Your task to perform on an android device: Set an alarm for 7am Image 0: 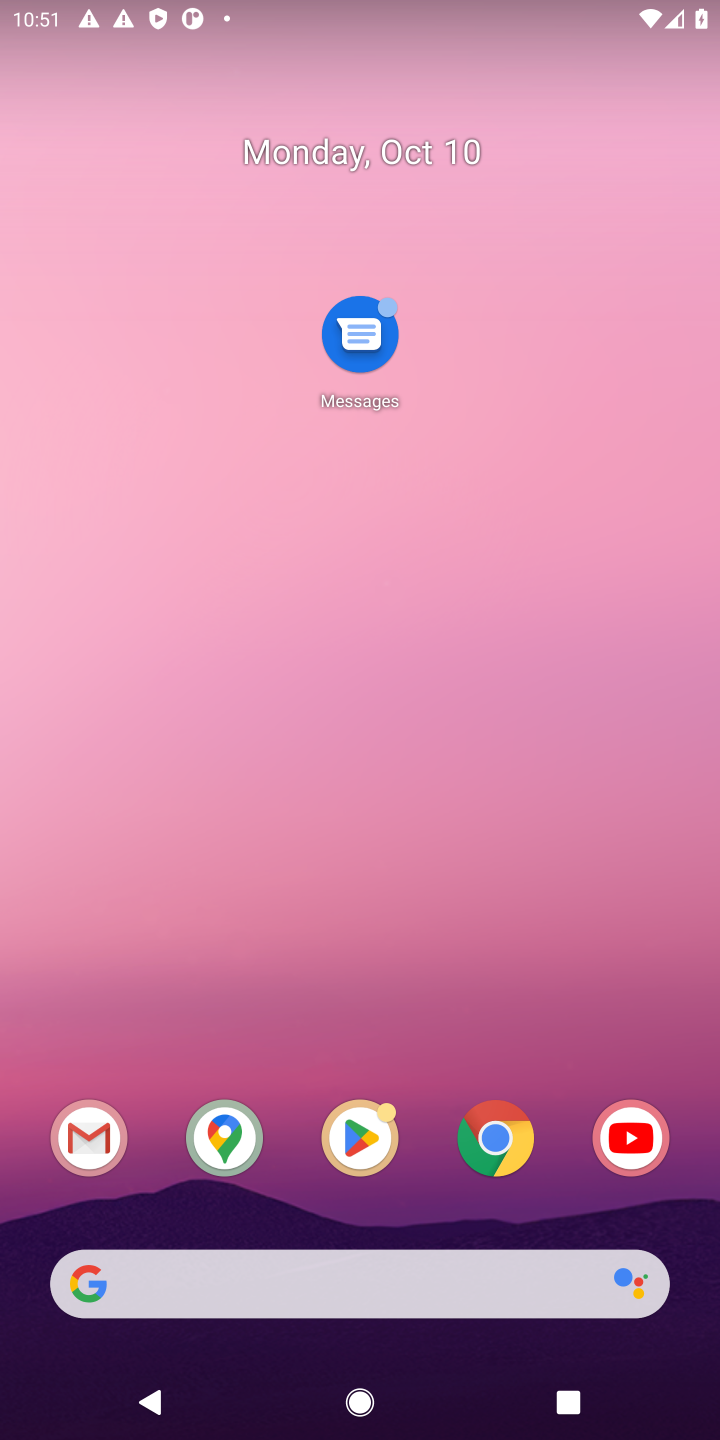
Step 0: drag from (412, 1231) to (459, 411)
Your task to perform on an android device: Set an alarm for 7am Image 1: 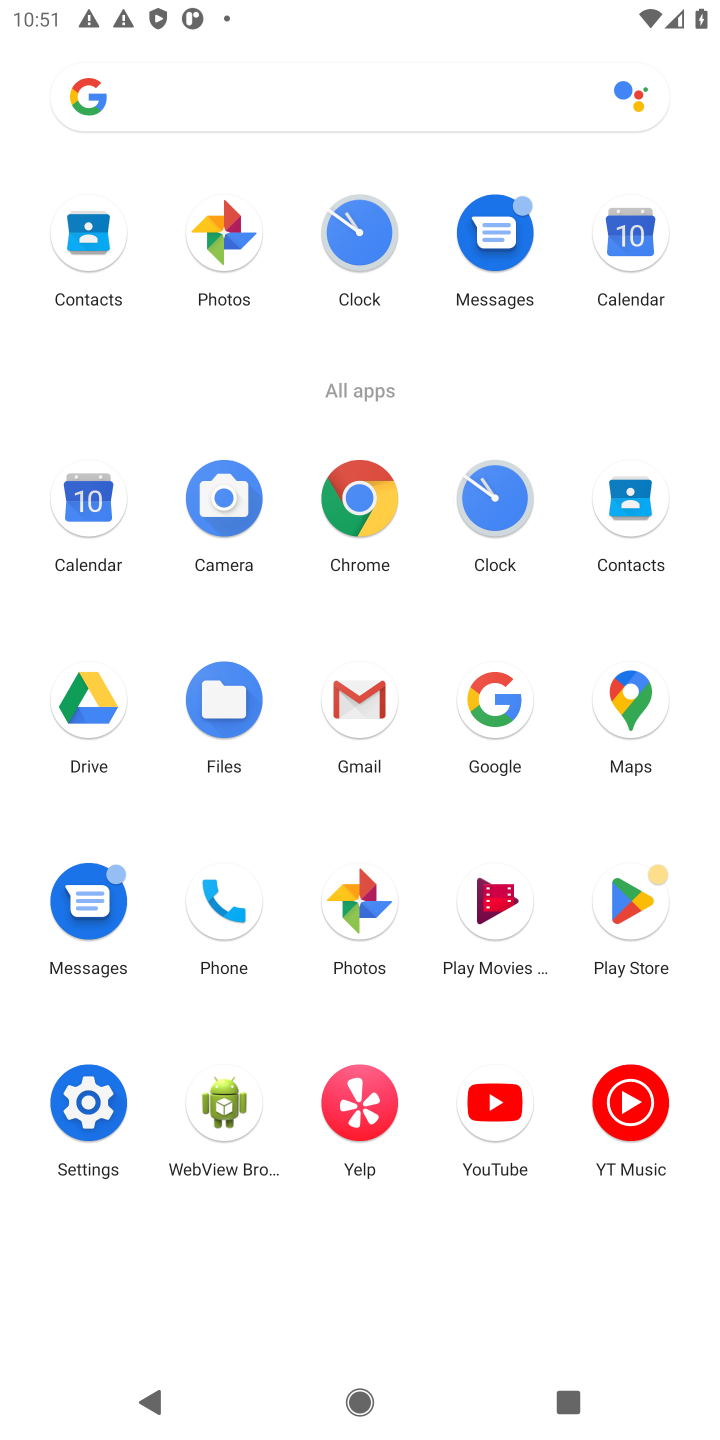
Step 1: click (503, 514)
Your task to perform on an android device: Set an alarm for 7am Image 2: 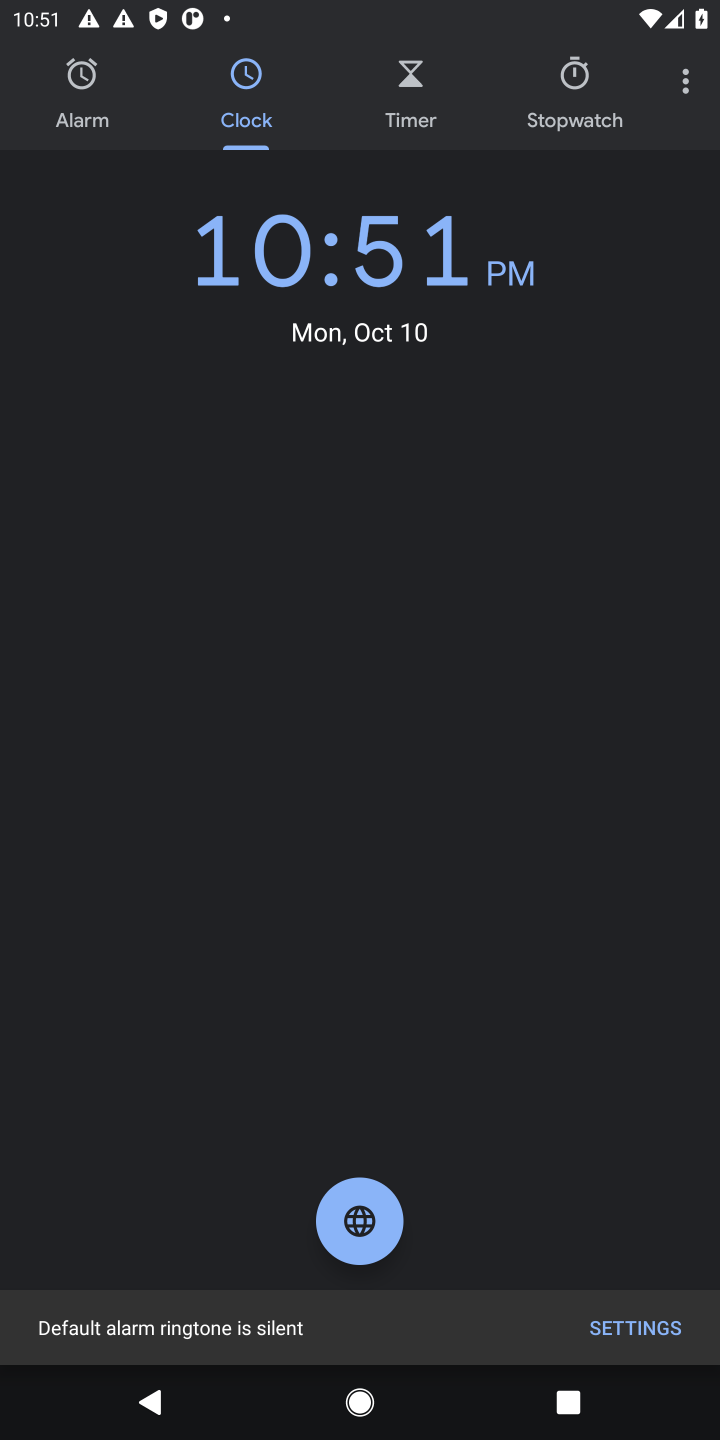
Step 2: click (80, 118)
Your task to perform on an android device: Set an alarm for 7am Image 3: 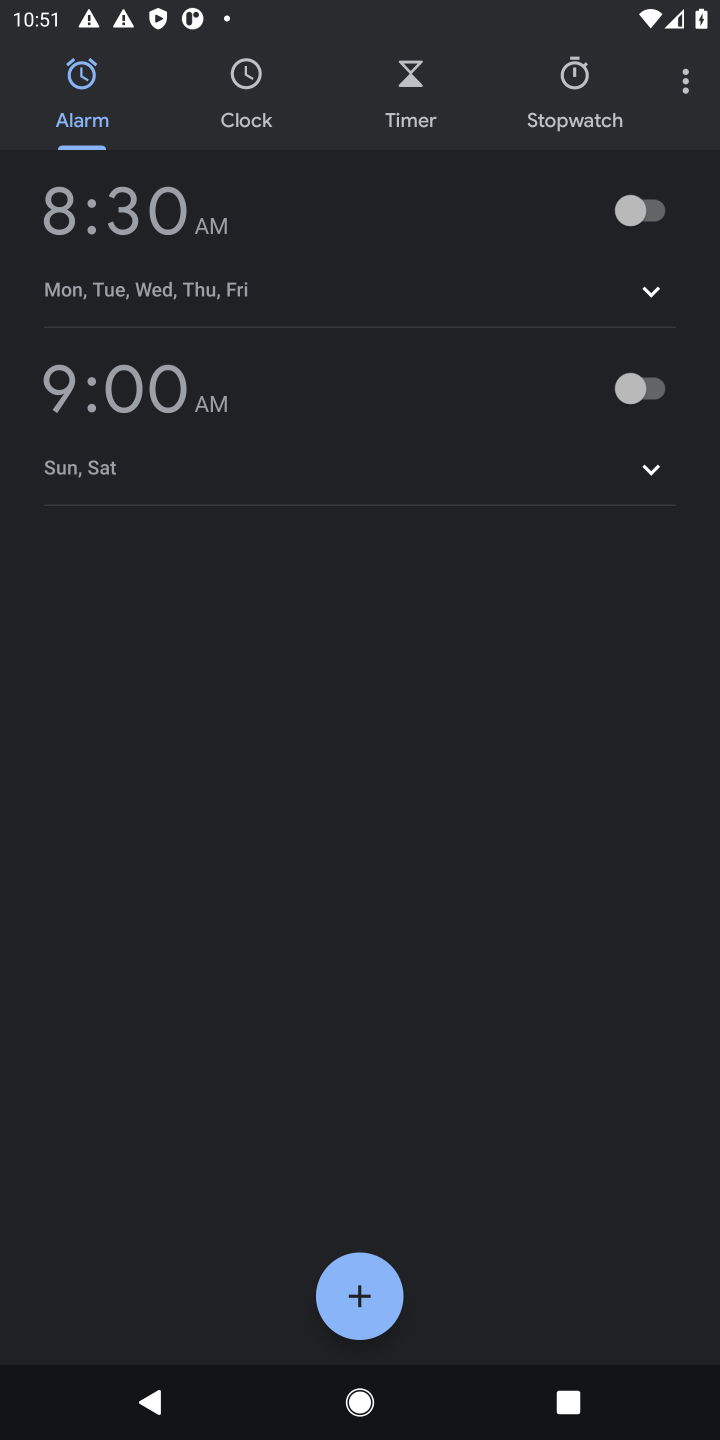
Step 3: click (364, 1300)
Your task to perform on an android device: Set an alarm for 7am Image 4: 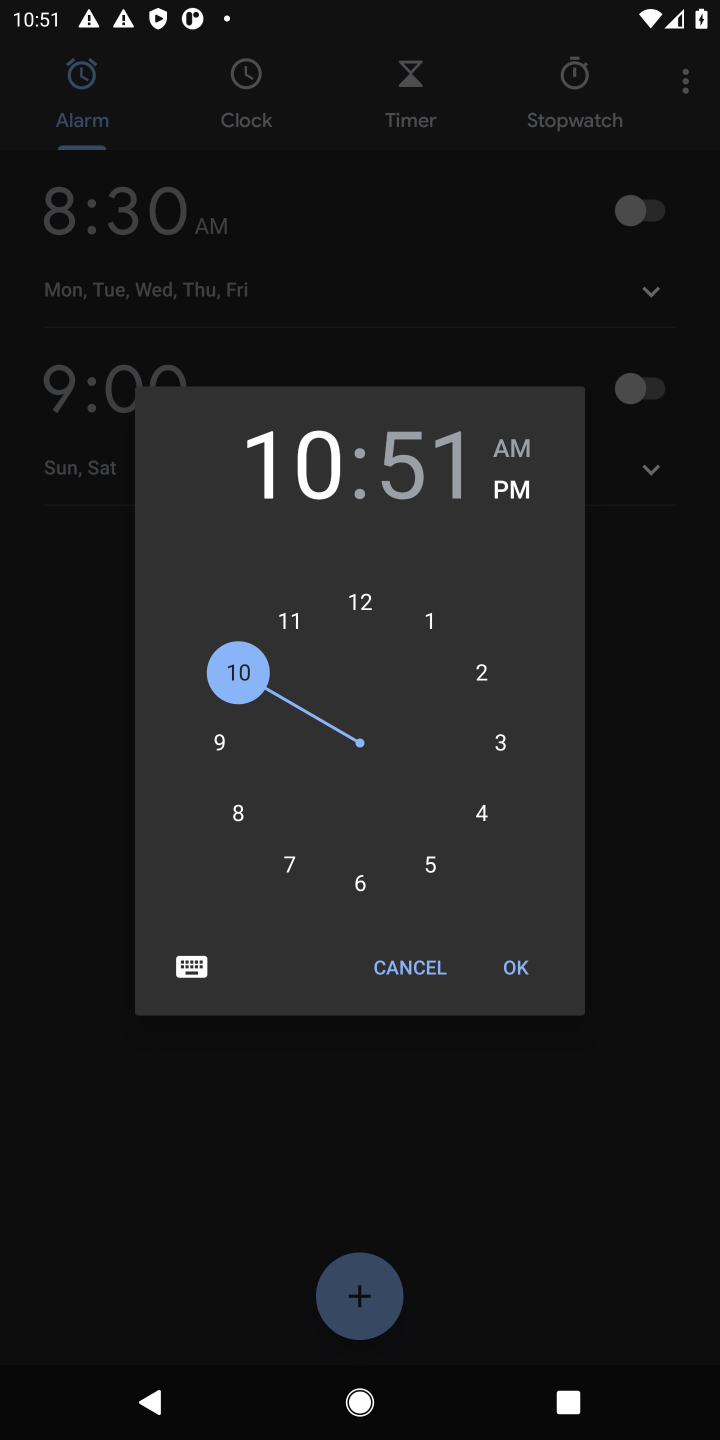
Step 4: click (281, 869)
Your task to perform on an android device: Set an alarm for 7am Image 5: 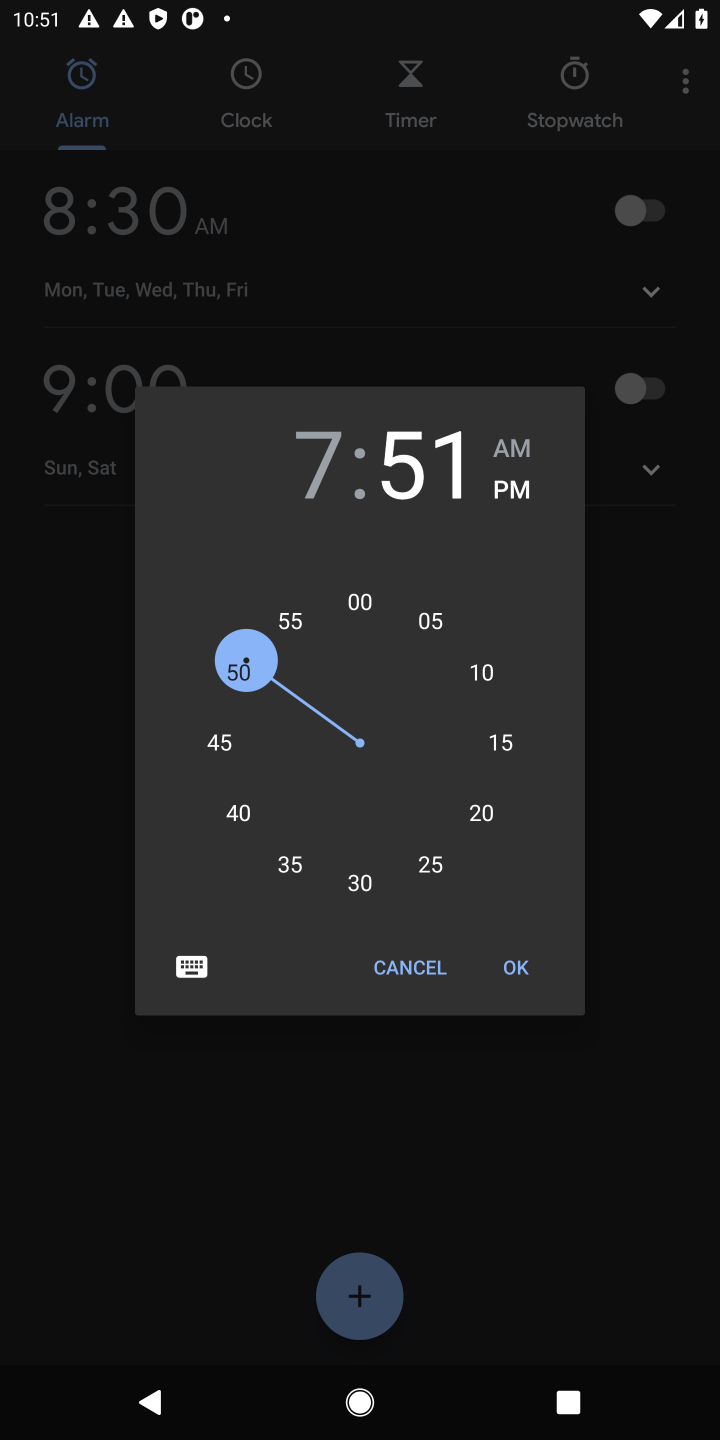
Step 5: click (358, 605)
Your task to perform on an android device: Set an alarm for 7am Image 6: 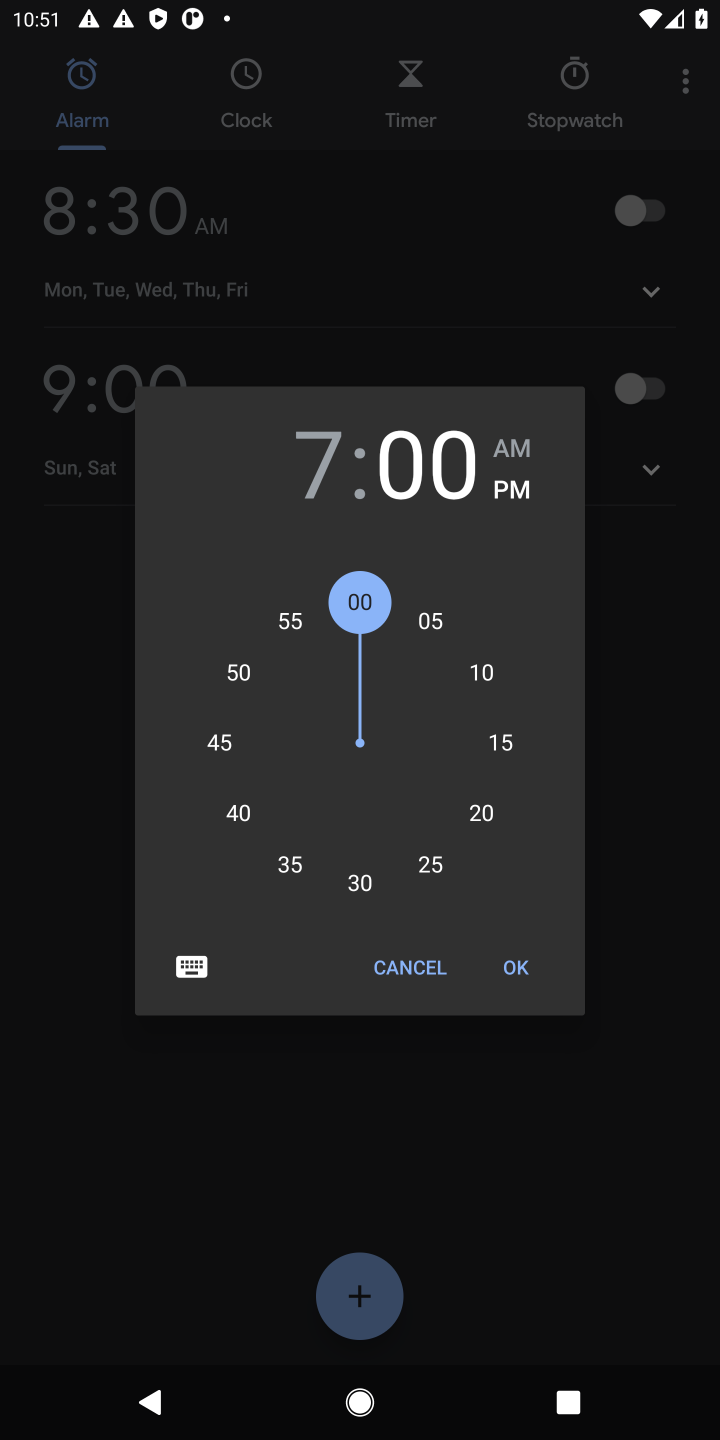
Step 6: click (365, 609)
Your task to perform on an android device: Set an alarm for 7am Image 7: 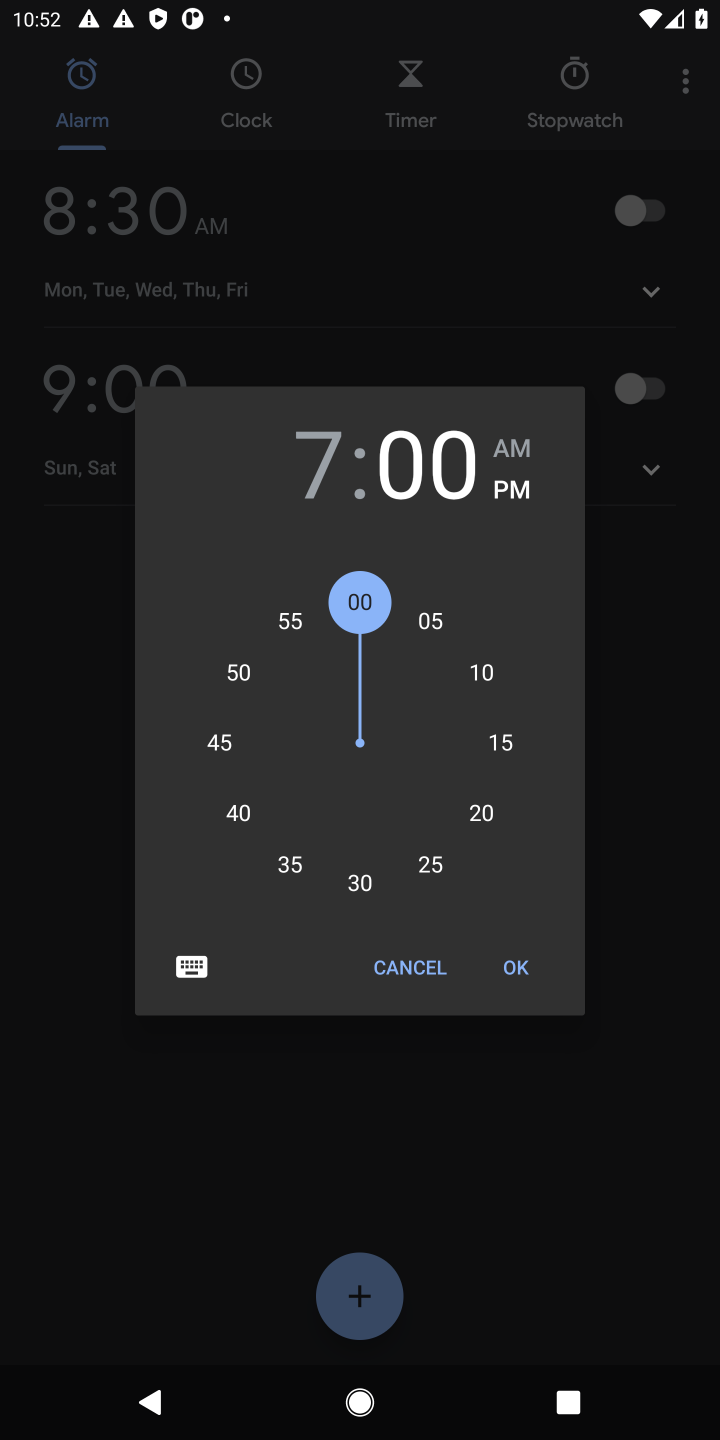
Step 7: click (517, 462)
Your task to perform on an android device: Set an alarm for 7am Image 8: 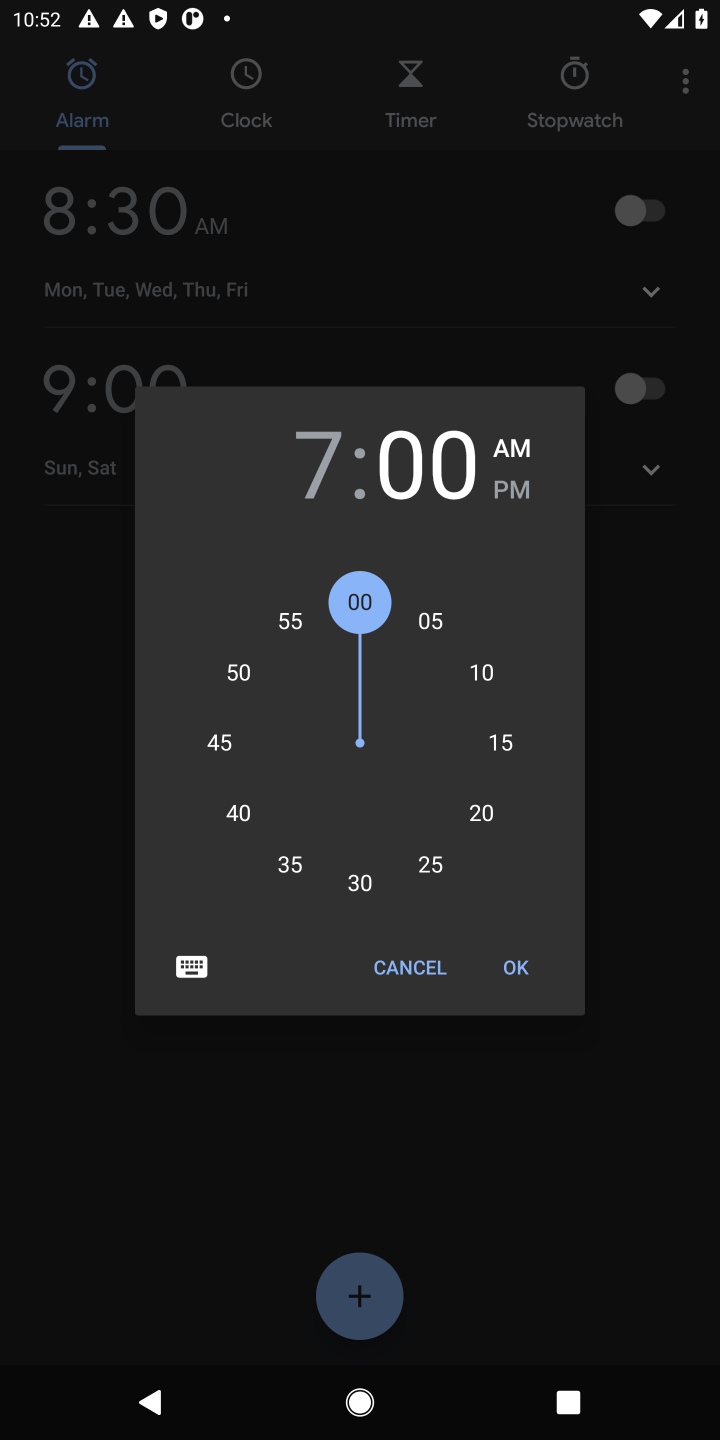
Step 8: drag from (375, 603) to (397, 812)
Your task to perform on an android device: Set an alarm for 7am Image 9: 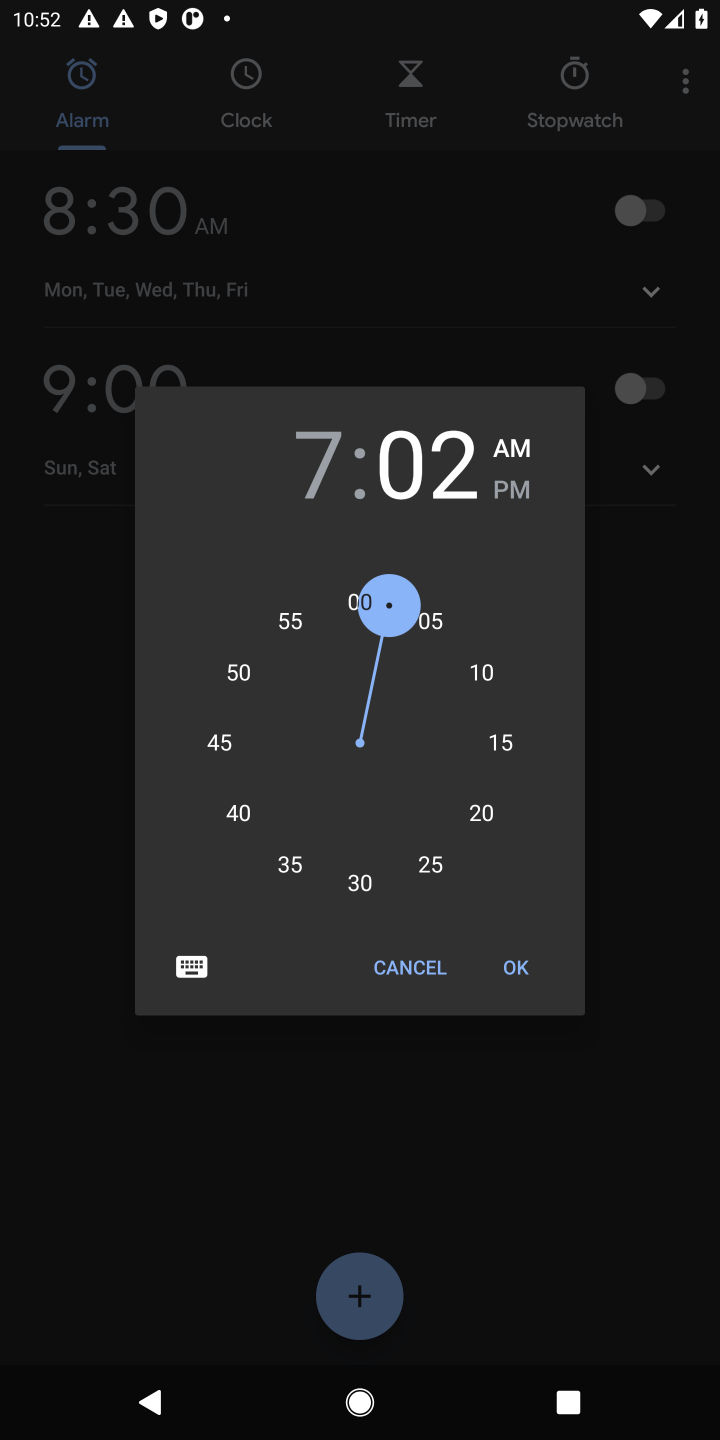
Step 9: click (498, 740)
Your task to perform on an android device: Set an alarm for 7am Image 10: 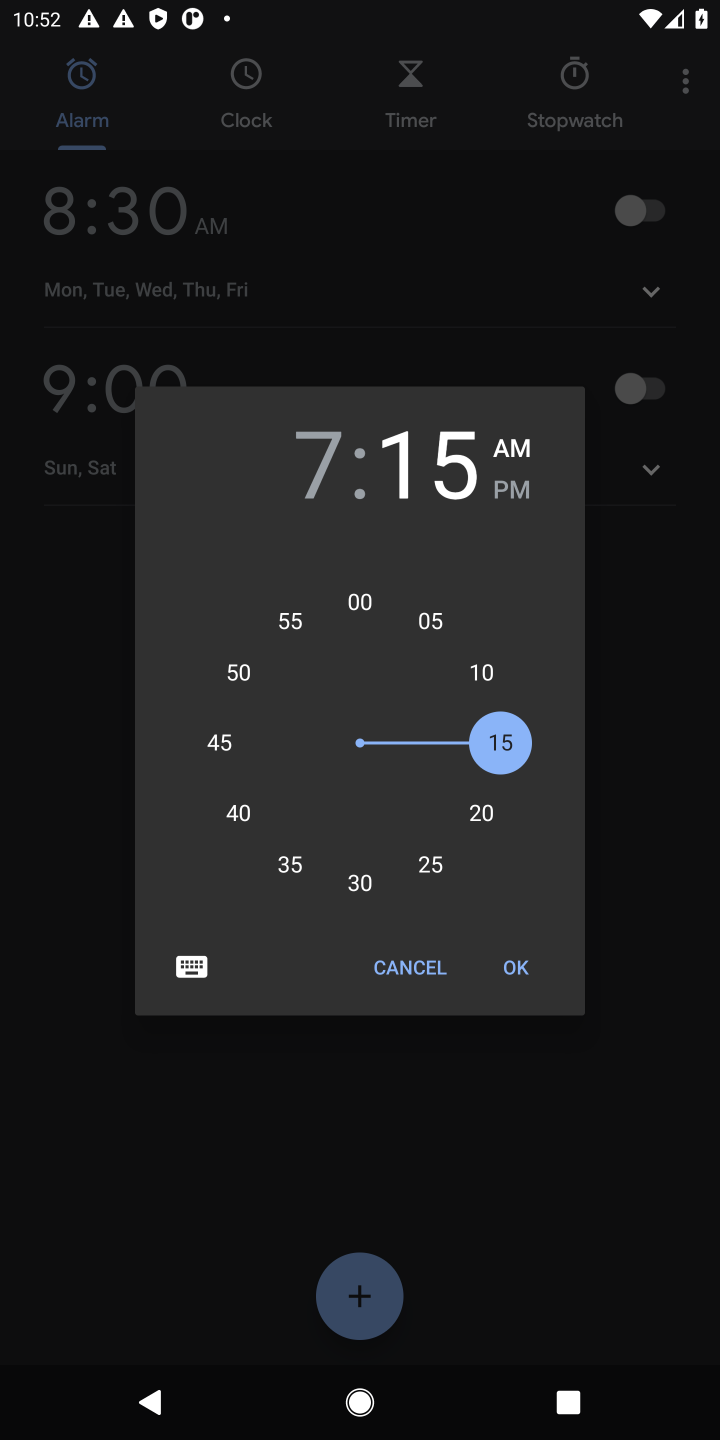
Step 10: click (360, 605)
Your task to perform on an android device: Set an alarm for 7am Image 11: 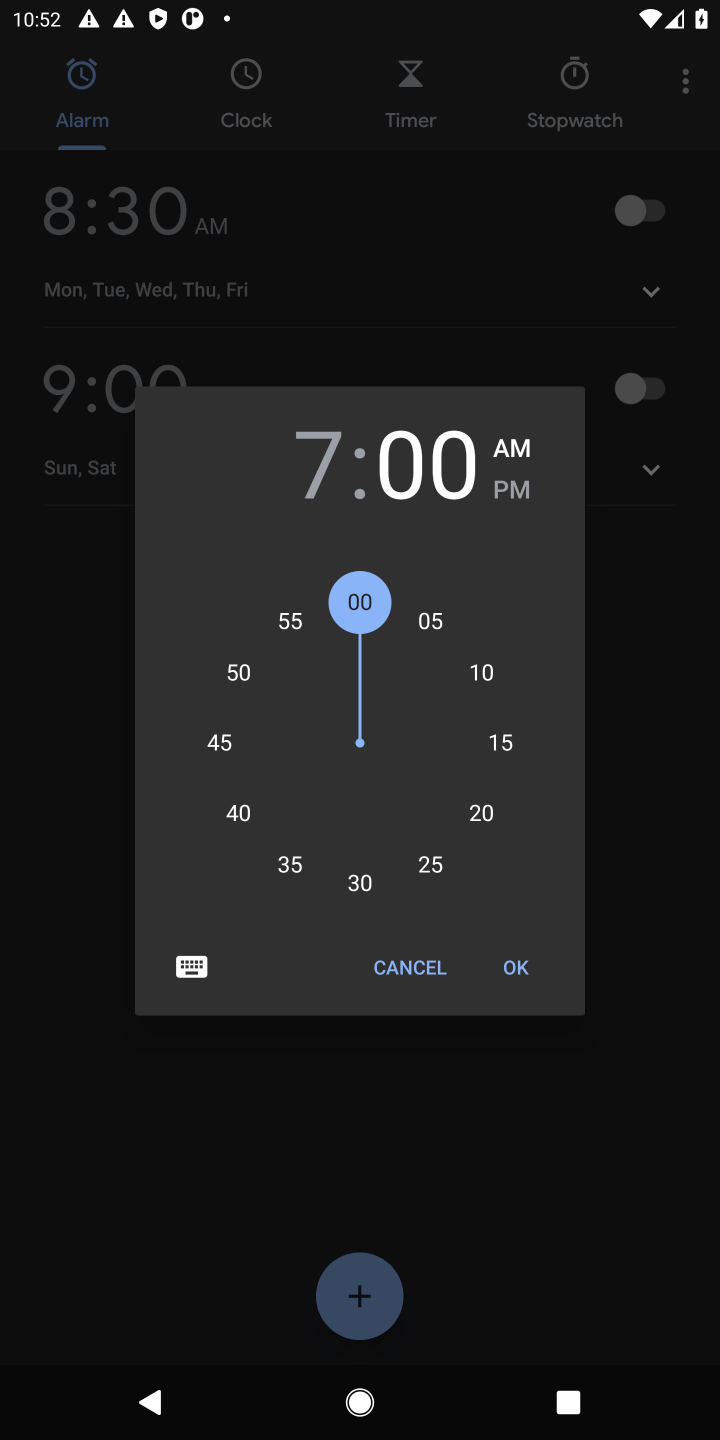
Step 11: click (528, 965)
Your task to perform on an android device: Set an alarm for 7am Image 12: 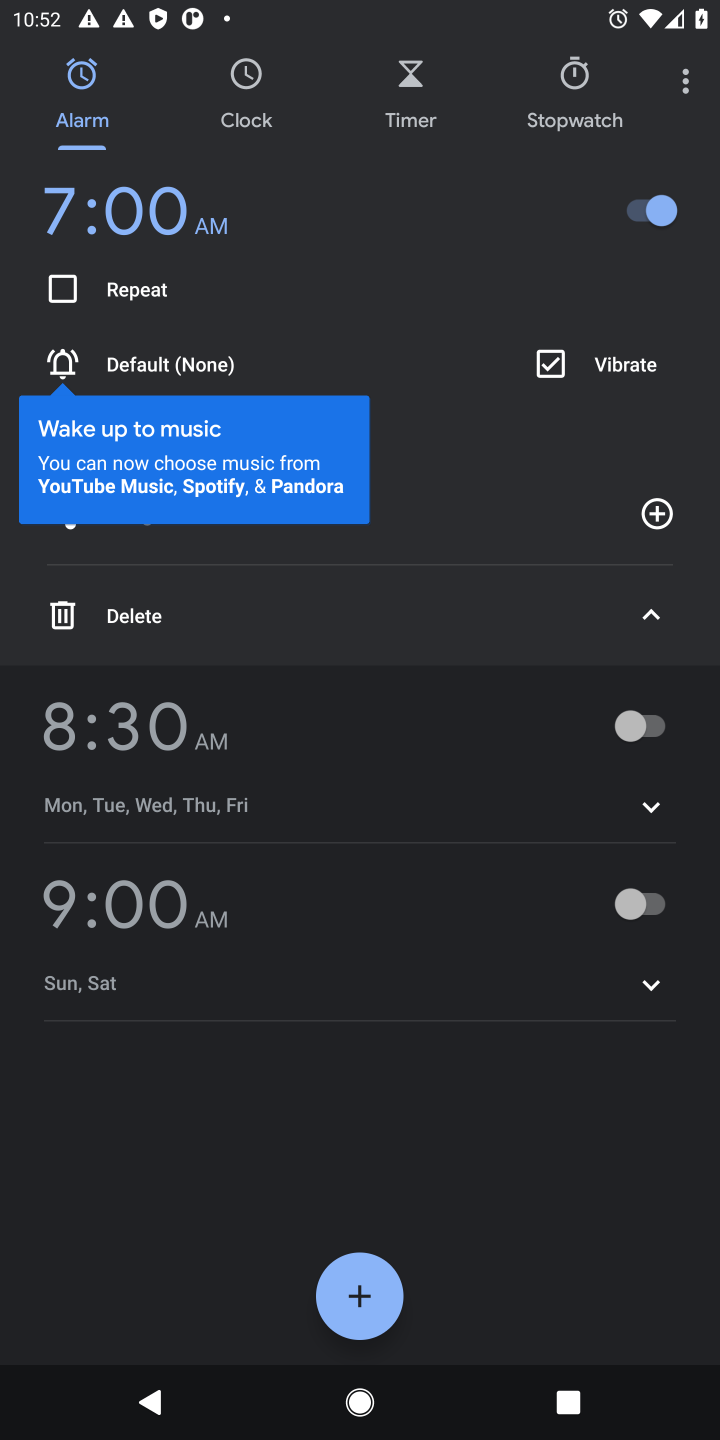
Step 12: click (88, 470)
Your task to perform on an android device: Set an alarm for 7am Image 13: 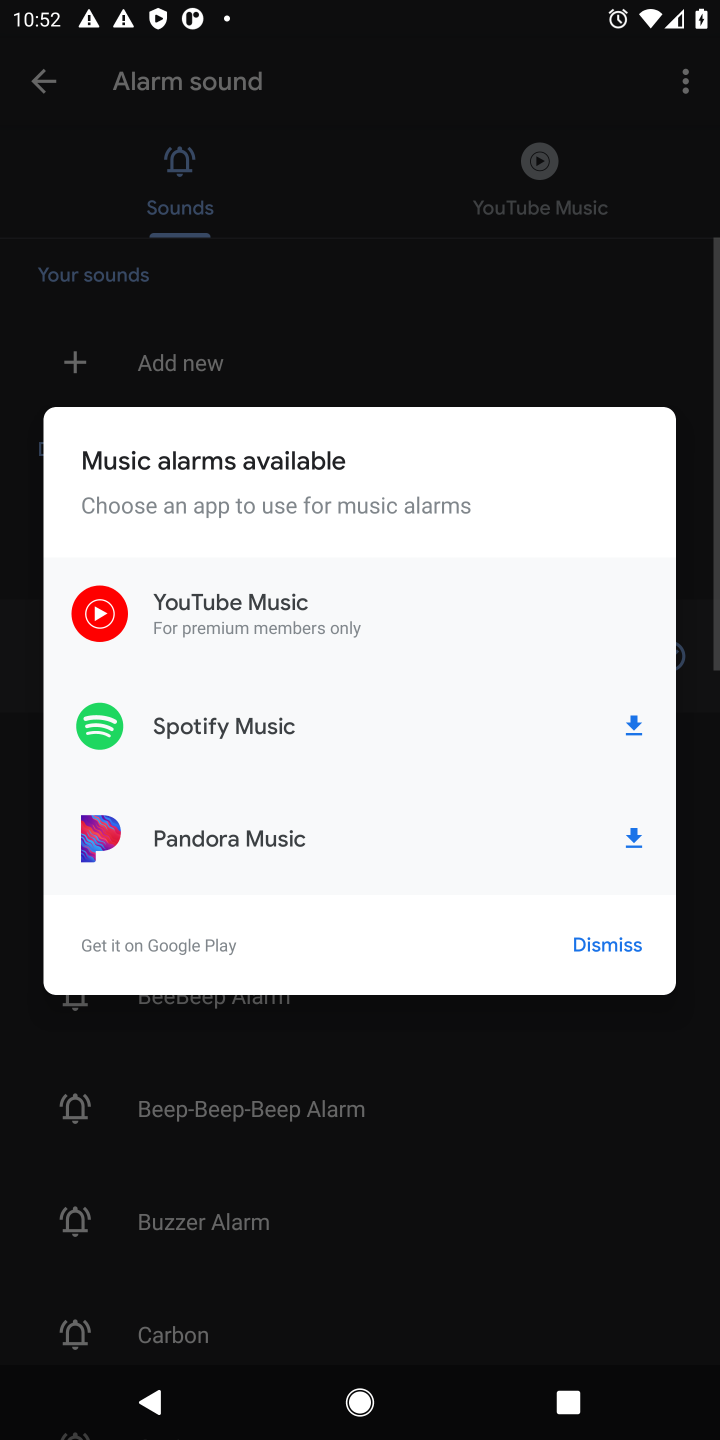
Step 13: click (475, 1193)
Your task to perform on an android device: Set an alarm for 7am Image 14: 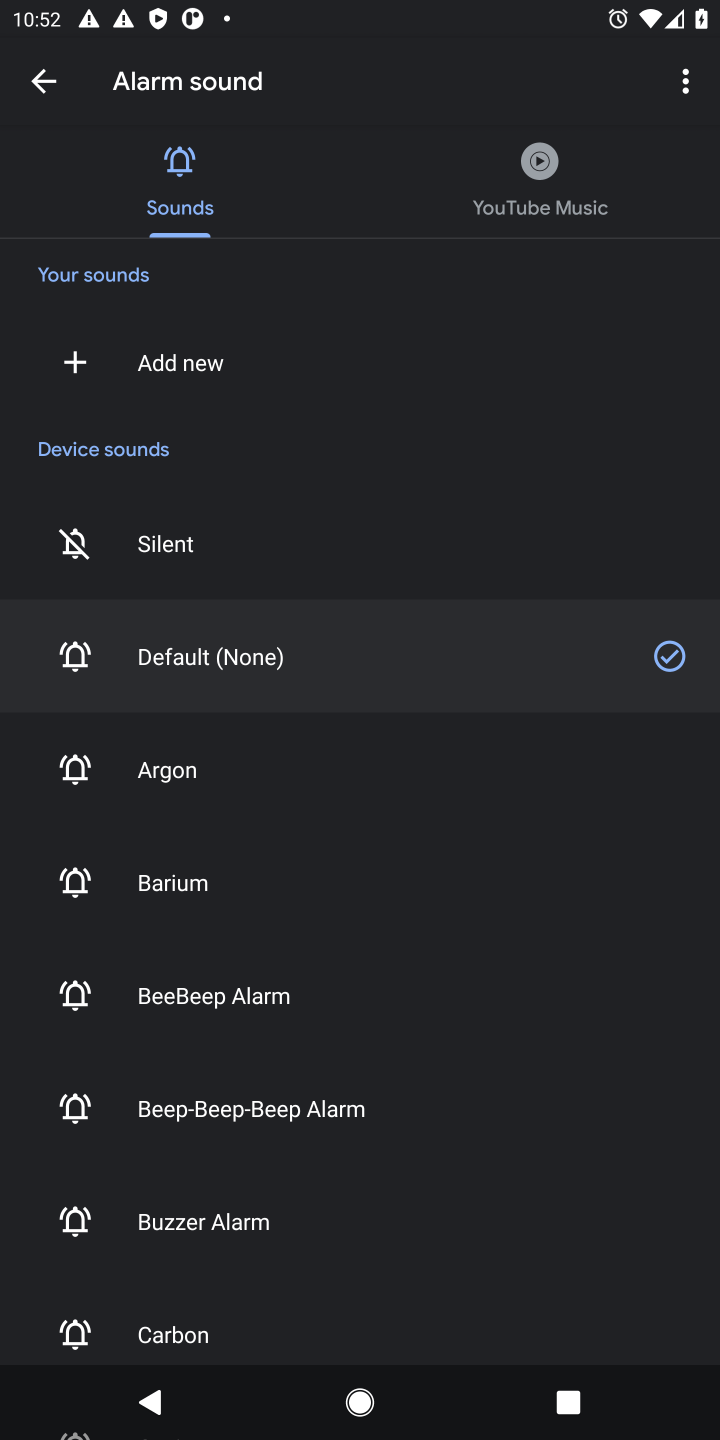
Step 14: click (164, 1423)
Your task to perform on an android device: Set an alarm for 7am Image 15: 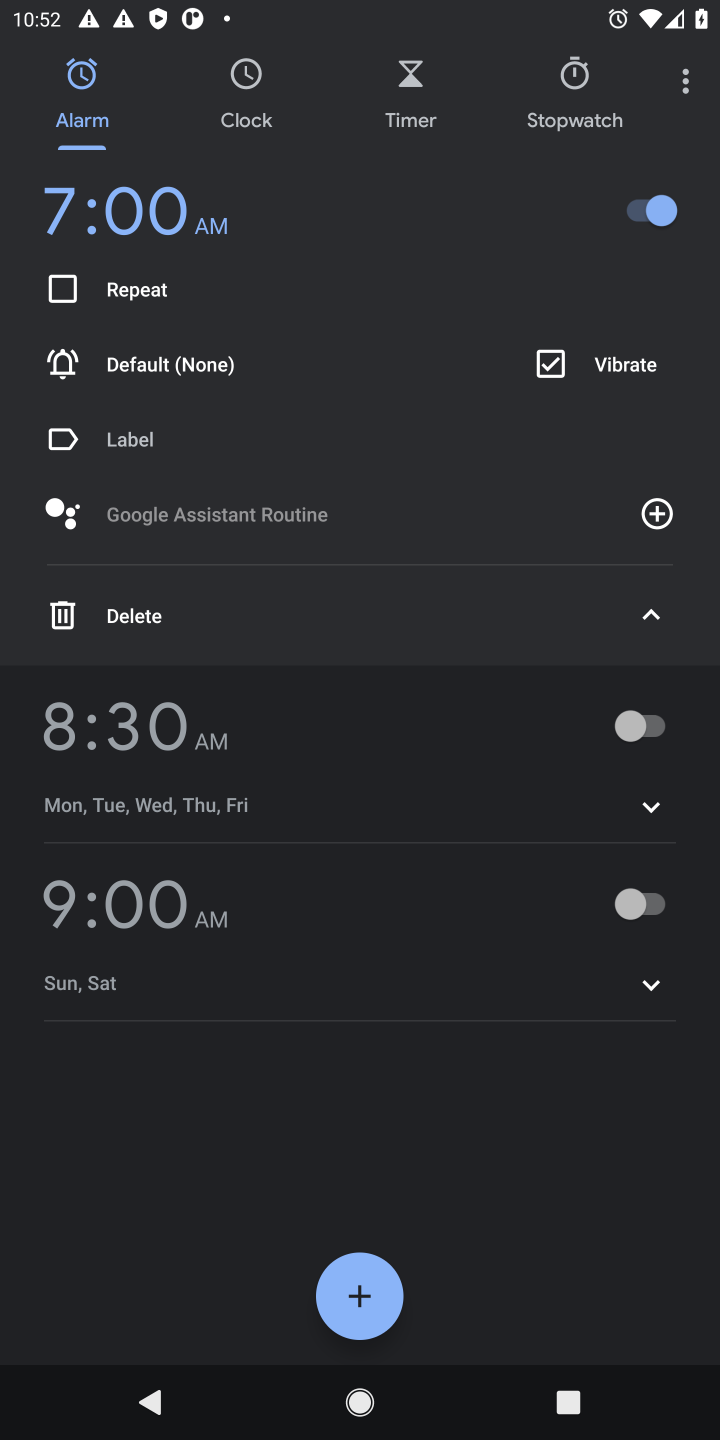
Step 15: click (652, 623)
Your task to perform on an android device: Set an alarm for 7am Image 16: 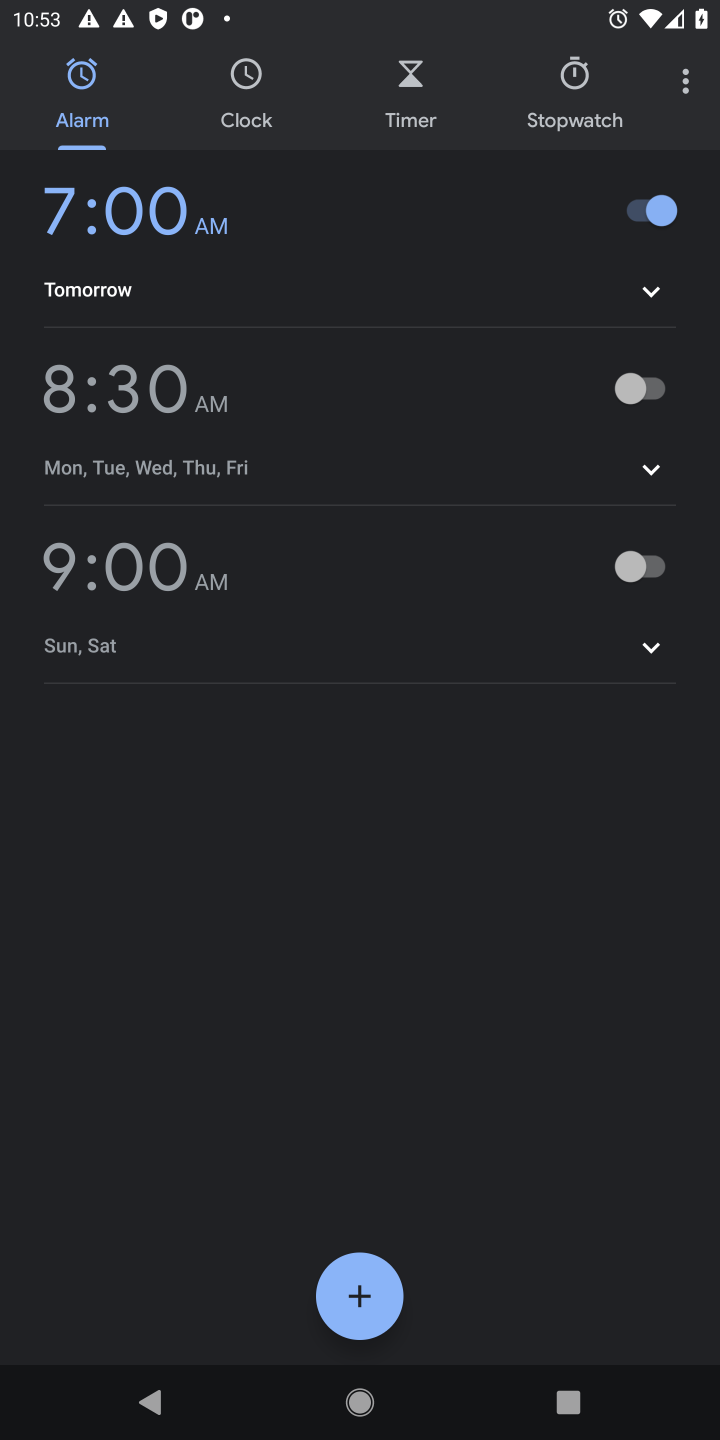
Step 16: task complete